Your task to perform on an android device: When is my next meeting? Image 0: 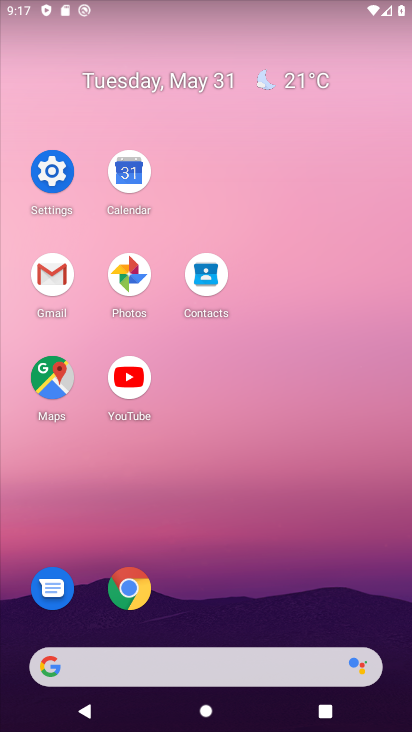
Step 0: click (131, 171)
Your task to perform on an android device: When is my next meeting? Image 1: 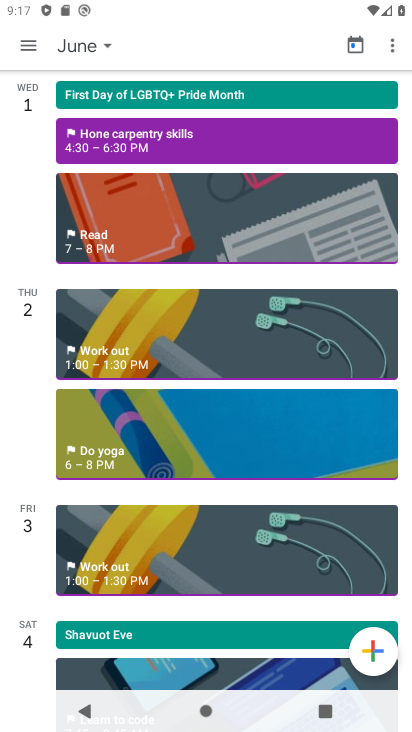
Step 1: click (32, 307)
Your task to perform on an android device: When is my next meeting? Image 2: 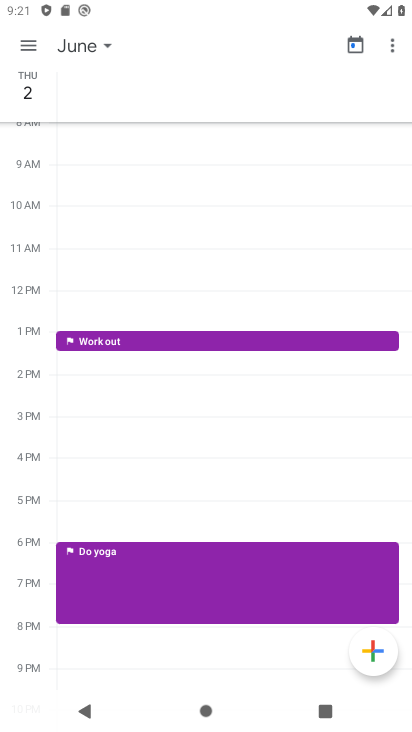
Step 2: task complete